Your task to perform on an android device: Go to Android settings Image 0: 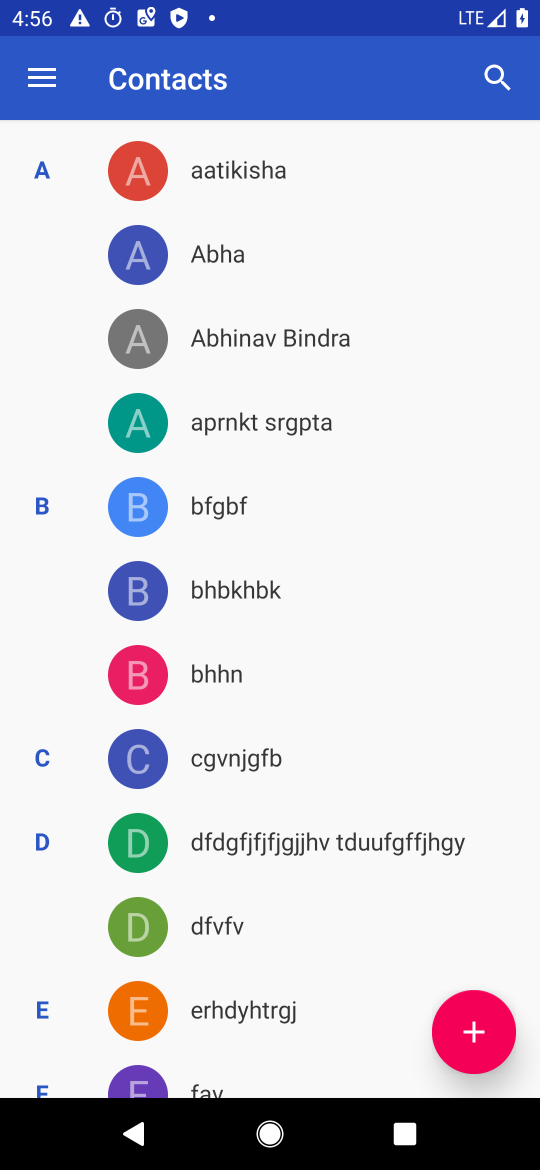
Step 0: task complete